Your task to perform on an android device: Open maps Image 0: 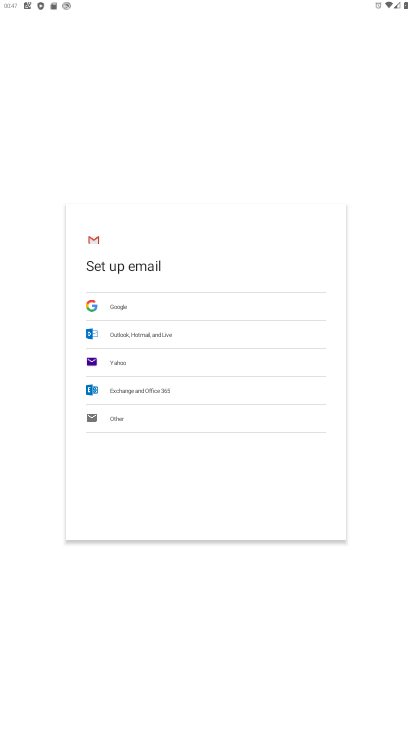
Step 0: press home button
Your task to perform on an android device: Open maps Image 1: 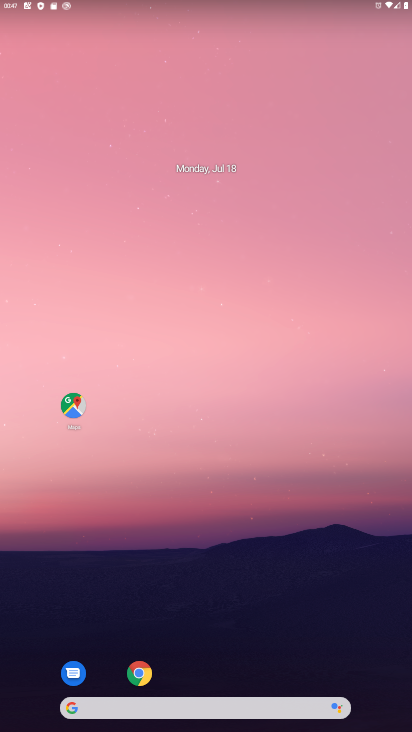
Step 1: click (66, 398)
Your task to perform on an android device: Open maps Image 2: 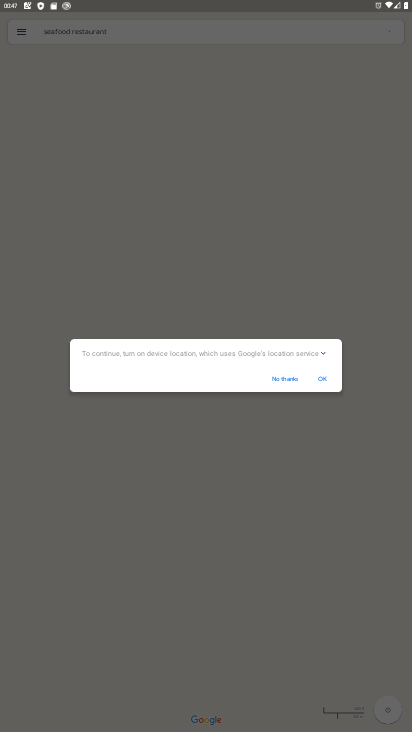
Step 2: click (329, 387)
Your task to perform on an android device: Open maps Image 3: 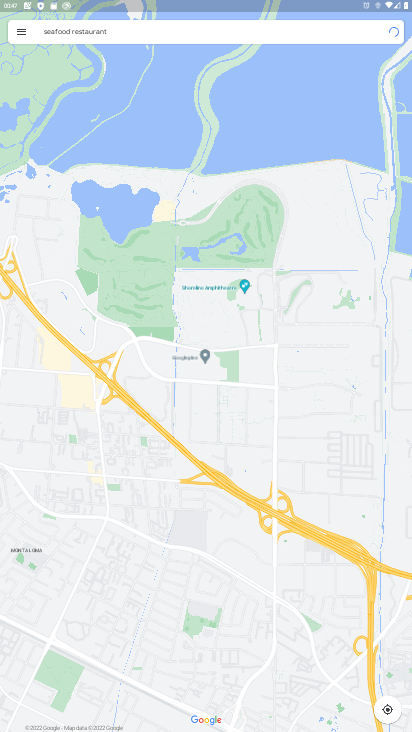
Step 3: click (209, 41)
Your task to perform on an android device: Open maps Image 4: 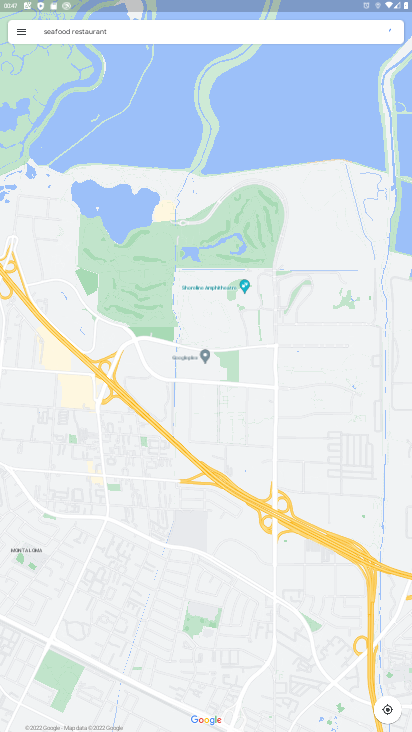
Step 4: task complete